Your task to perform on an android device: open wifi settings Image 0: 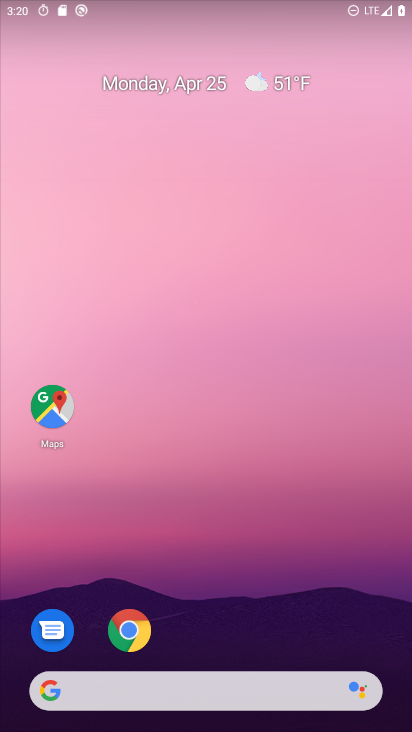
Step 0: drag from (199, 660) to (202, 71)
Your task to perform on an android device: open wifi settings Image 1: 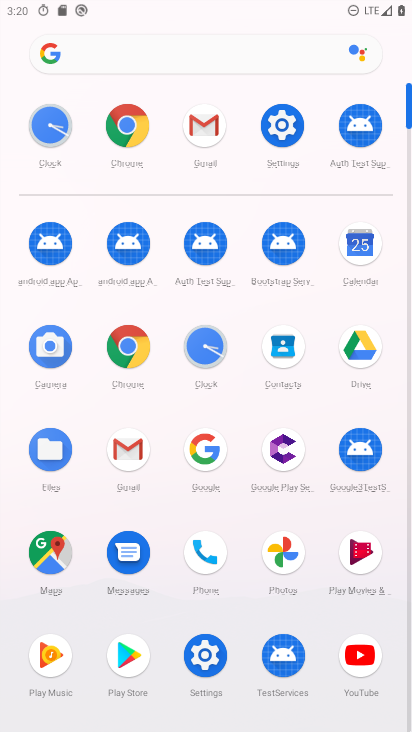
Step 1: click (205, 652)
Your task to perform on an android device: open wifi settings Image 2: 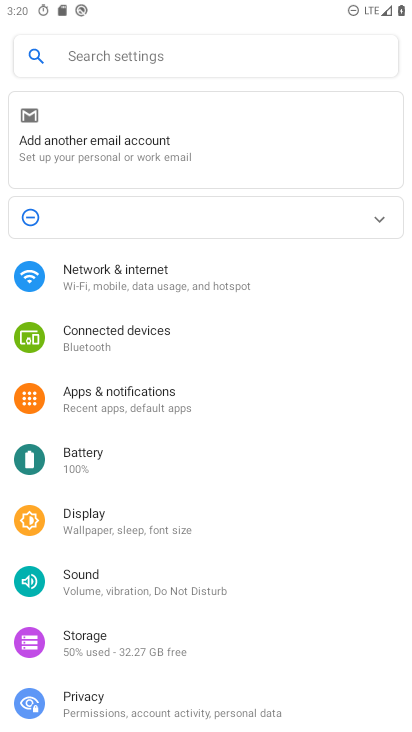
Step 2: click (133, 280)
Your task to perform on an android device: open wifi settings Image 3: 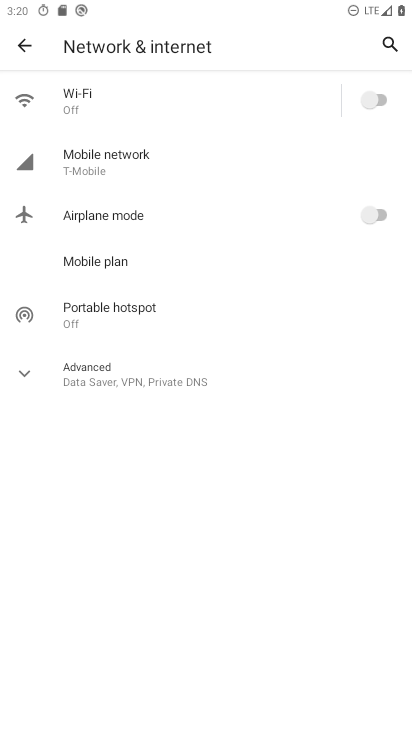
Step 3: click (164, 100)
Your task to perform on an android device: open wifi settings Image 4: 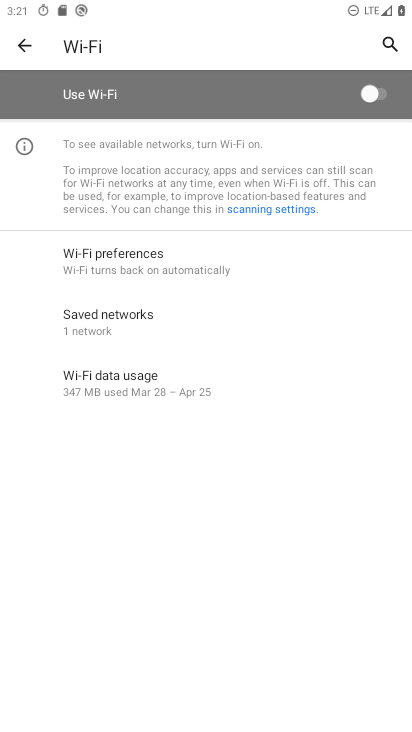
Step 4: drag from (258, 669) to (309, 189)
Your task to perform on an android device: open wifi settings Image 5: 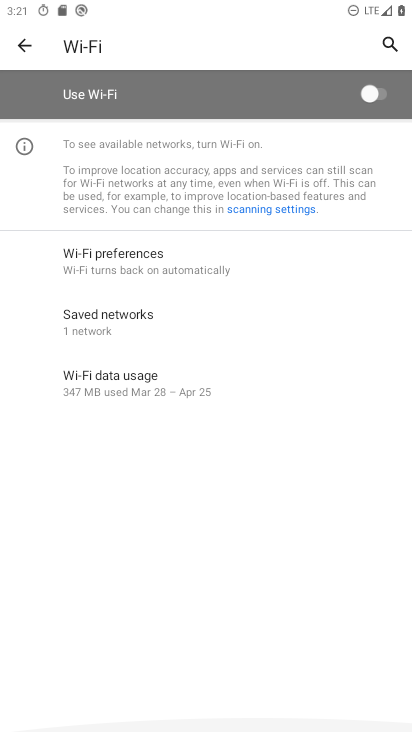
Step 5: drag from (228, 381) to (268, 232)
Your task to perform on an android device: open wifi settings Image 6: 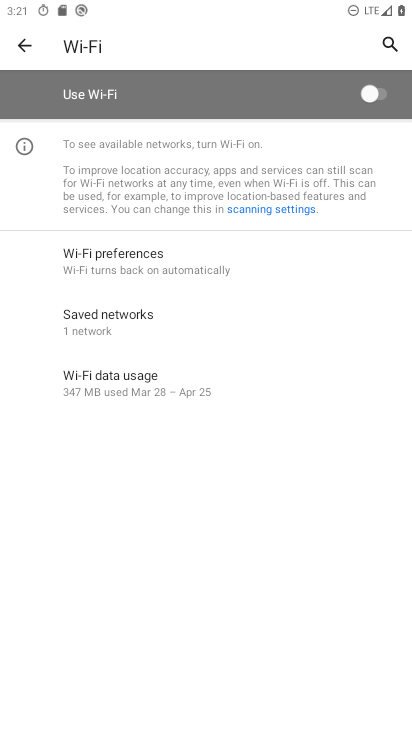
Step 6: click (301, 167)
Your task to perform on an android device: open wifi settings Image 7: 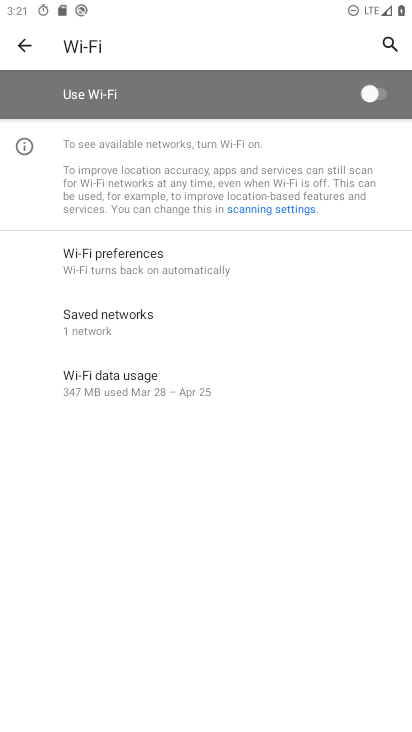
Step 7: click (216, 165)
Your task to perform on an android device: open wifi settings Image 8: 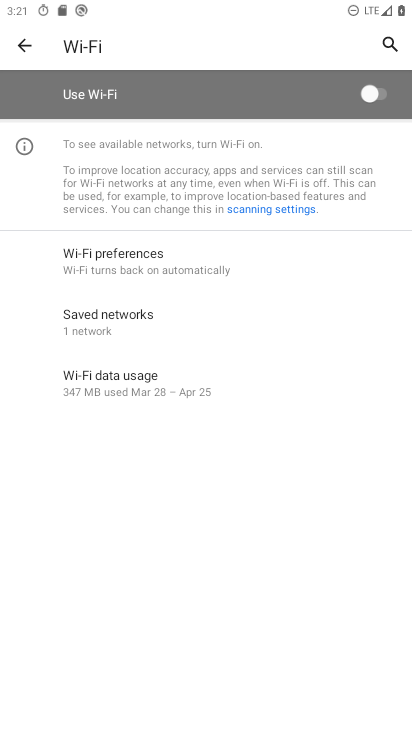
Step 8: drag from (198, 163) to (217, 135)
Your task to perform on an android device: open wifi settings Image 9: 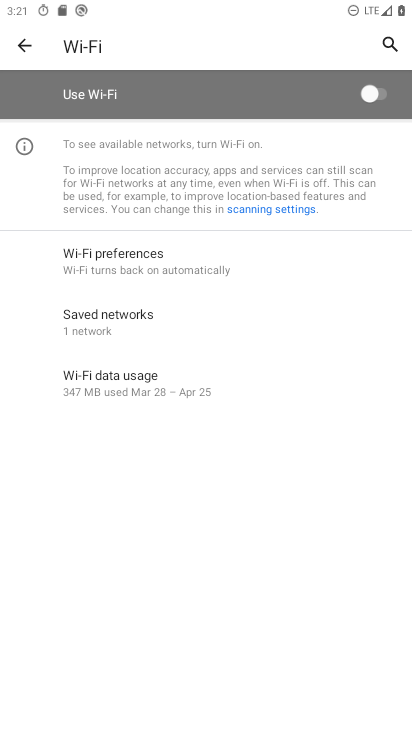
Step 9: click (253, 515)
Your task to perform on an android device: open wifi settings Image 10: 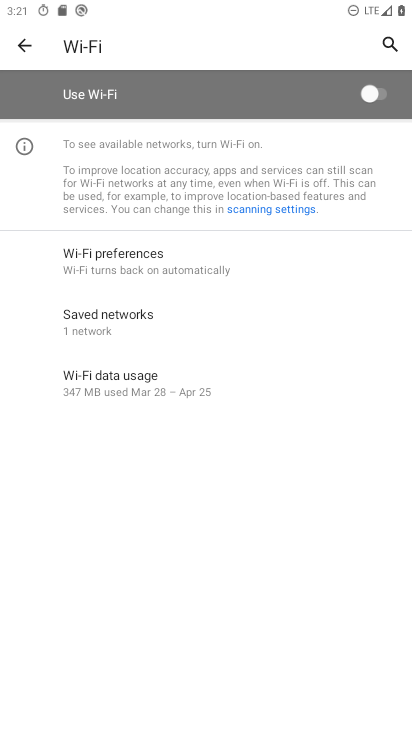
Step 10: click (199, 150)
Your task to perform on an android device: open wifi settings Image 11: 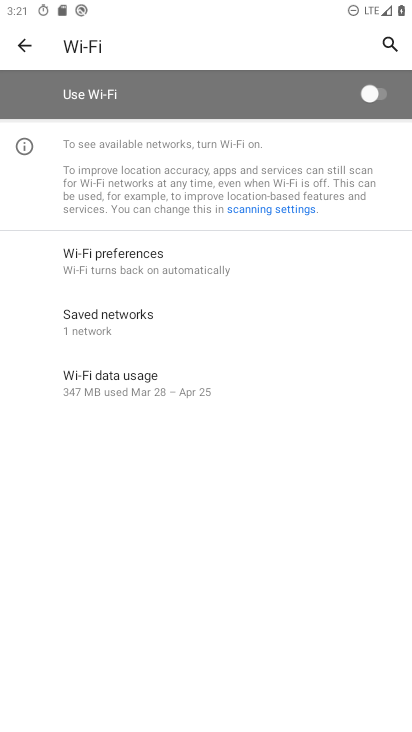
Step 11: click (182, 166)
Your task to perform on an android device: open wifi settings Image 12: 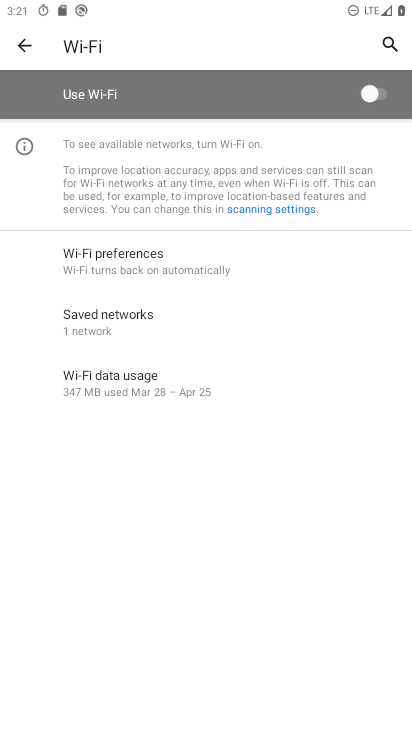
Step 12: click (205, 249)
Your task to perform on an android device: open wifi settings Image 13: 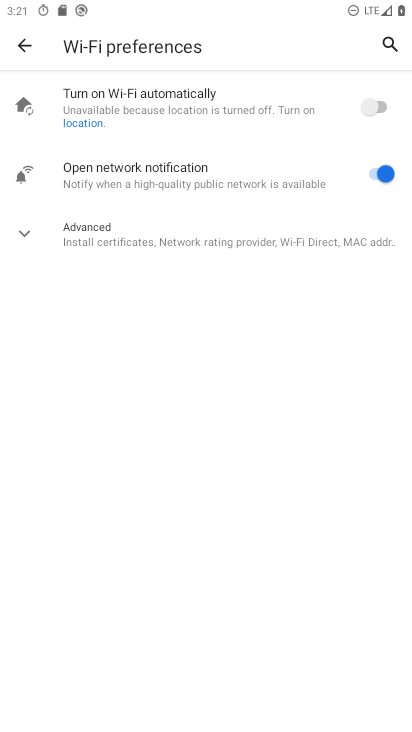
Step 13: task complete